Your task to perform on an android device: turn off priority inbox in the gmail app Image 0: 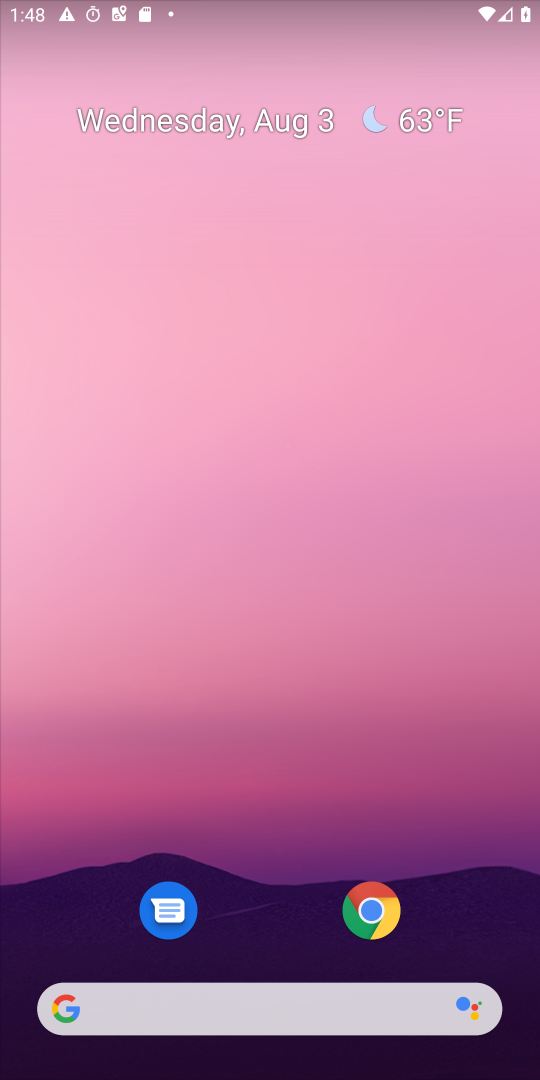
Step 0: drag from (330, 741) to (324, 0)
Your task to perform on an android device: turn off priority inbox in the gmail app Image 1: 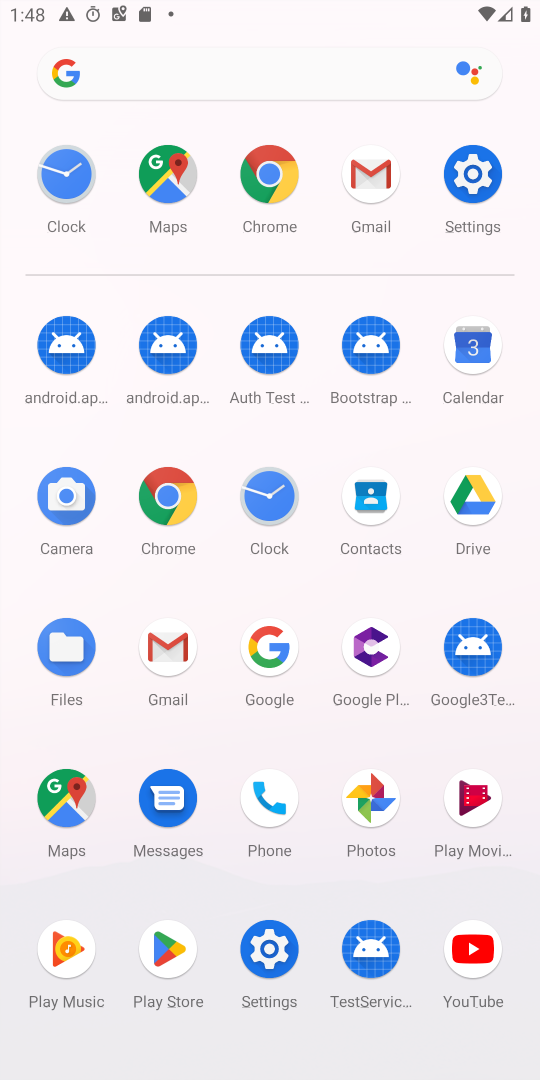
Step 1: click (184, 639)
Your task to perform on an android device: turn off priority inbox in the gmail app Image 2: 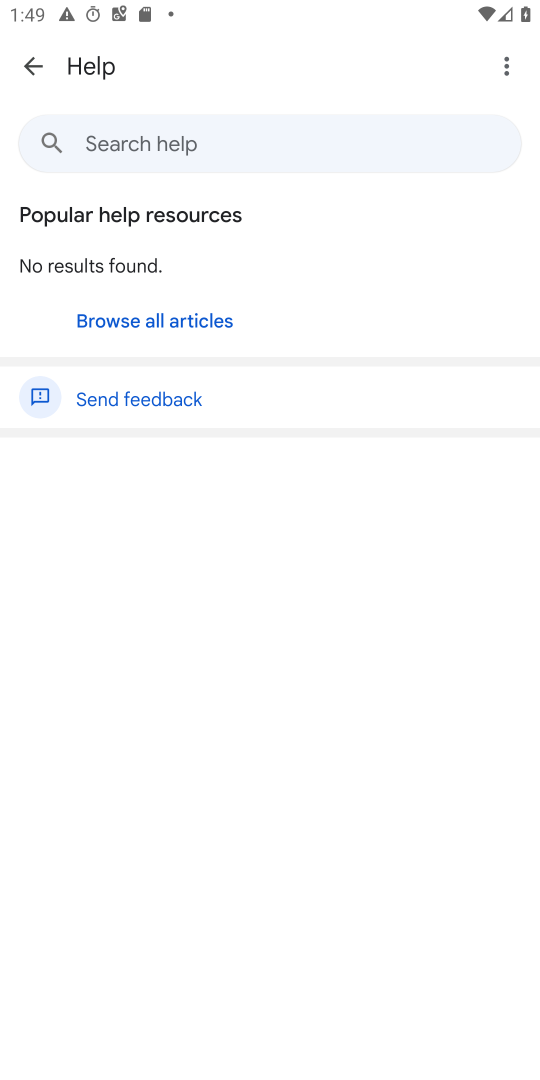
Step 2: press home button
Your task to perform on an android device: turn off priority inbox in the gmail app Image 3: 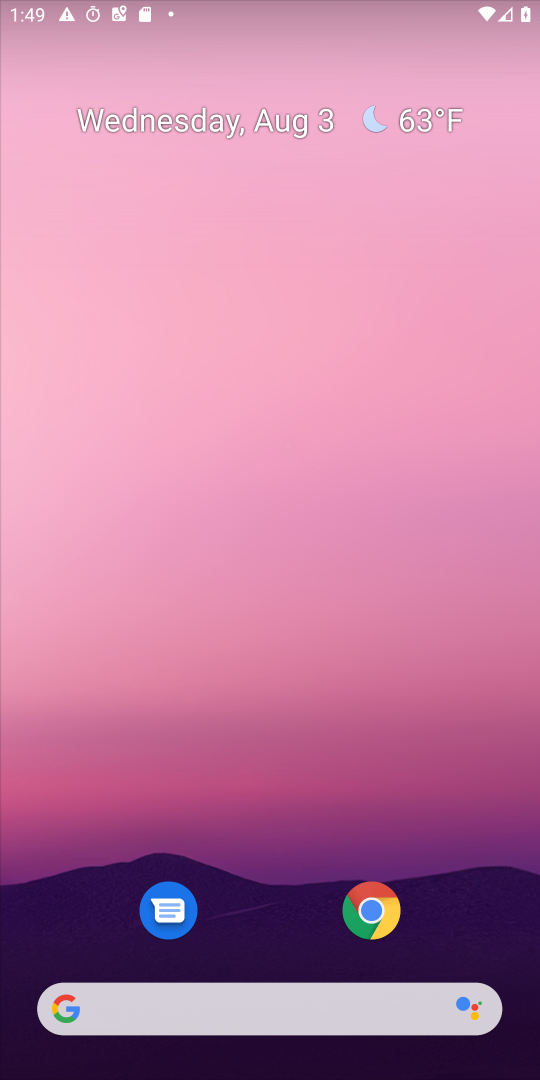
Step 3: drag from (332, 980) to (366, 185)
Your task to perform on an android device: turn off priority inbox in the gmail app Image 4: 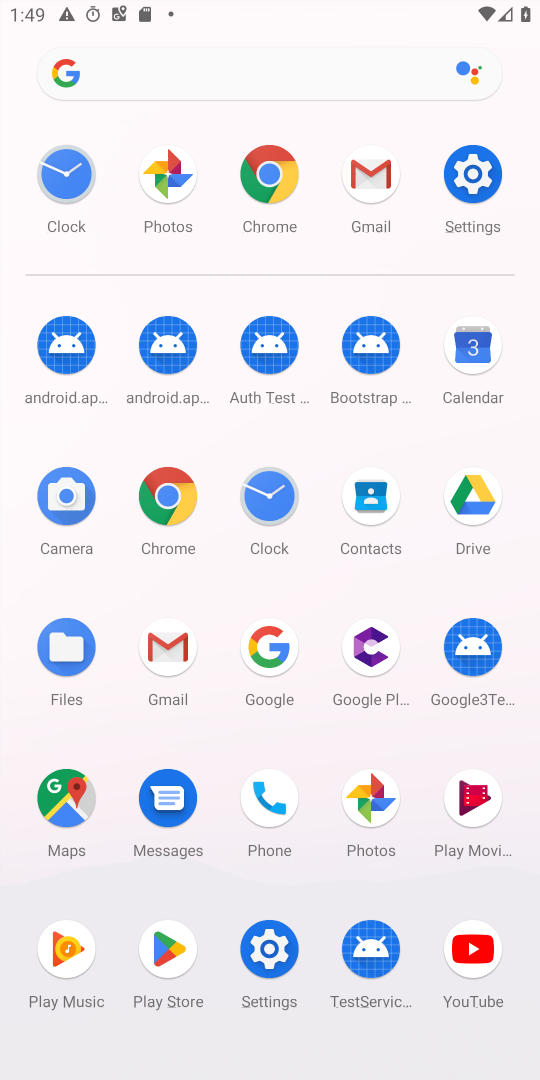
Step 4: click (163, 642)
Your task to perform on an android device: turn off priority inbox in the gmail app Image 5: 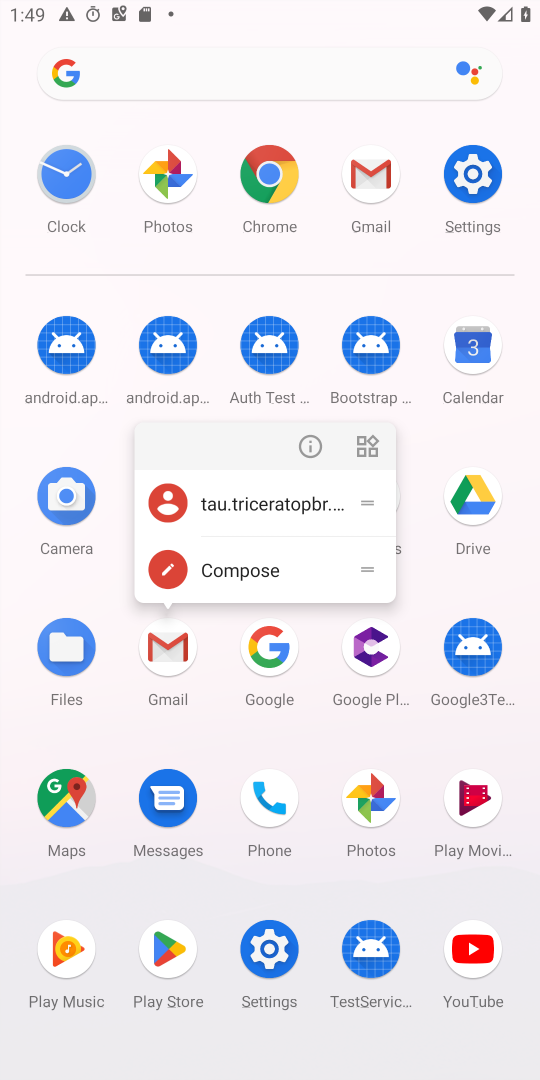
Step 5: click (168, 641)
Your task to perform on an android device: turn off priority inbox in the gmail app Image 6: 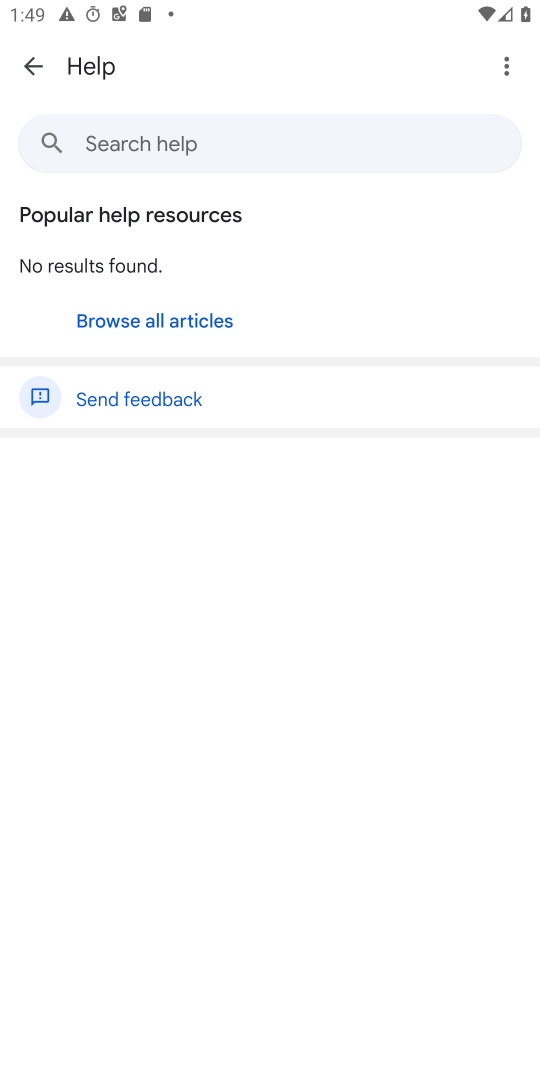
Step 6: press back button
Your task to perform on an android device: turn off priority inbox in the gmail app Image 7: 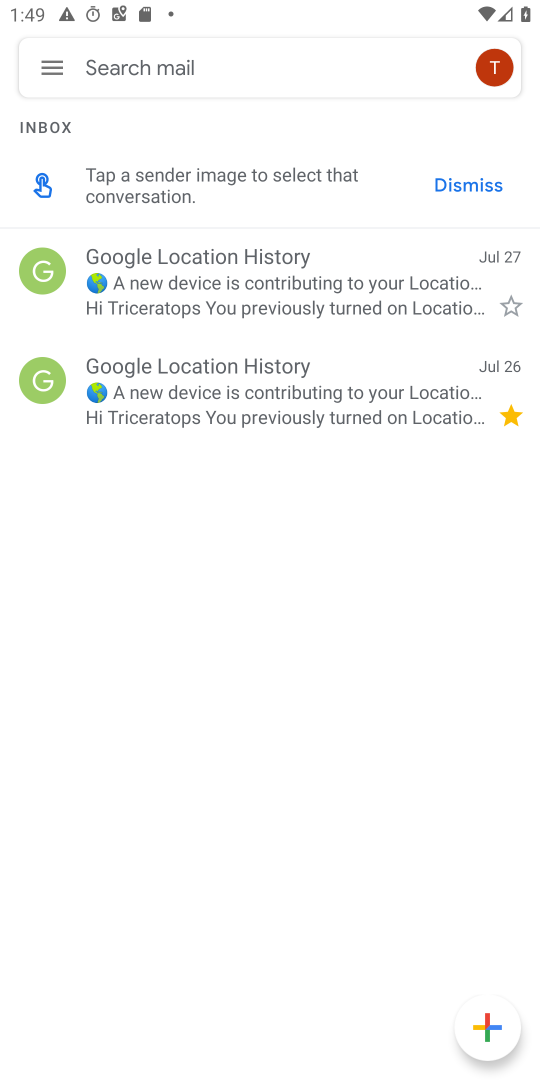
Step 7: click (54, 65)
Your task to perform on an android device: turn off priority inbox in the gmail app Image 8: 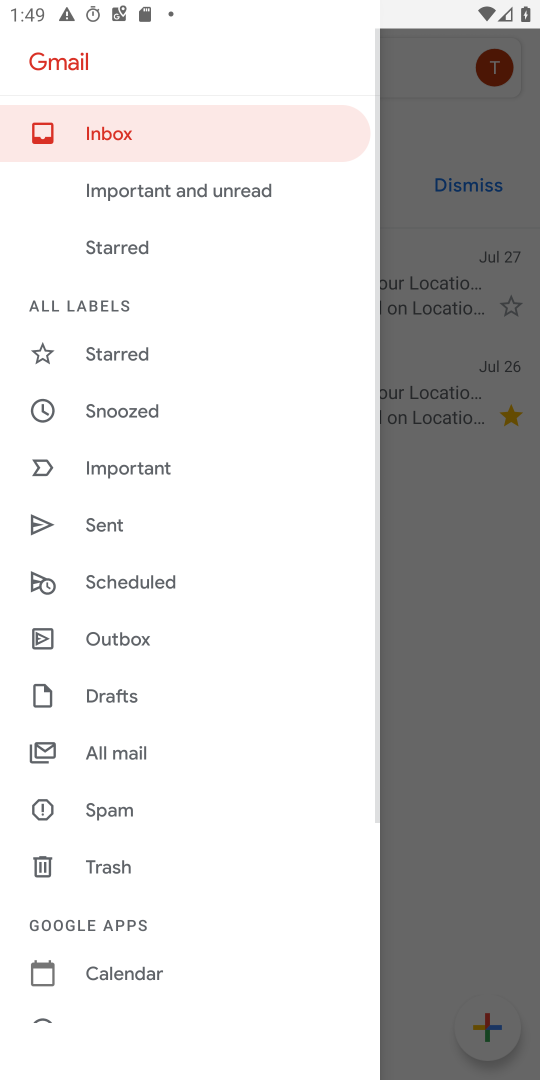
Step 8: drag from (211, 924) to (188, 163)
Your task to perform on an android device: turn off priority inbox in the gmail app Image 9: 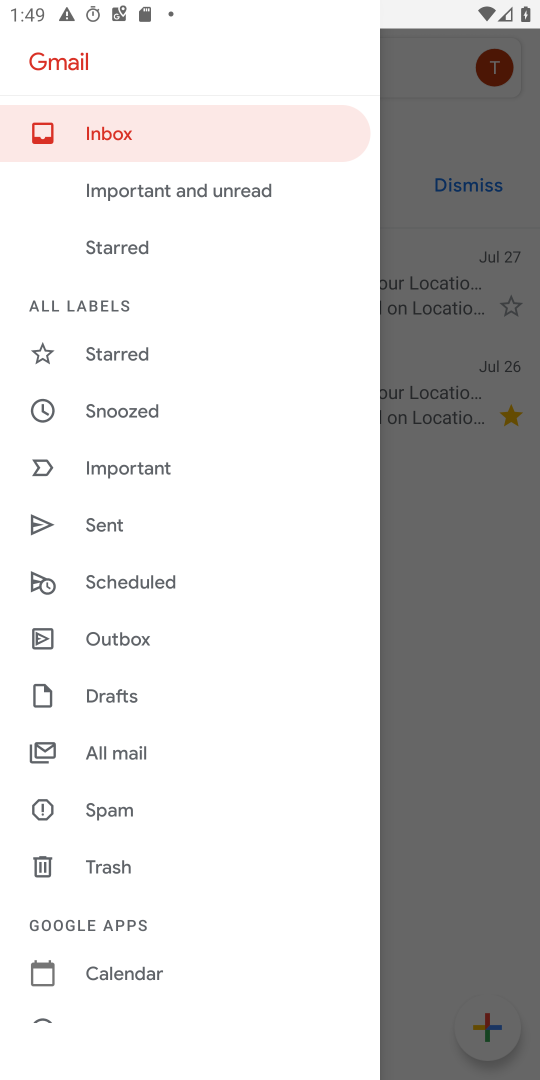
Step 9: drag from (117, 772) to (135, 156)
Your task to perform on an android device: turn off priority inbox in the gmail app Image 10: 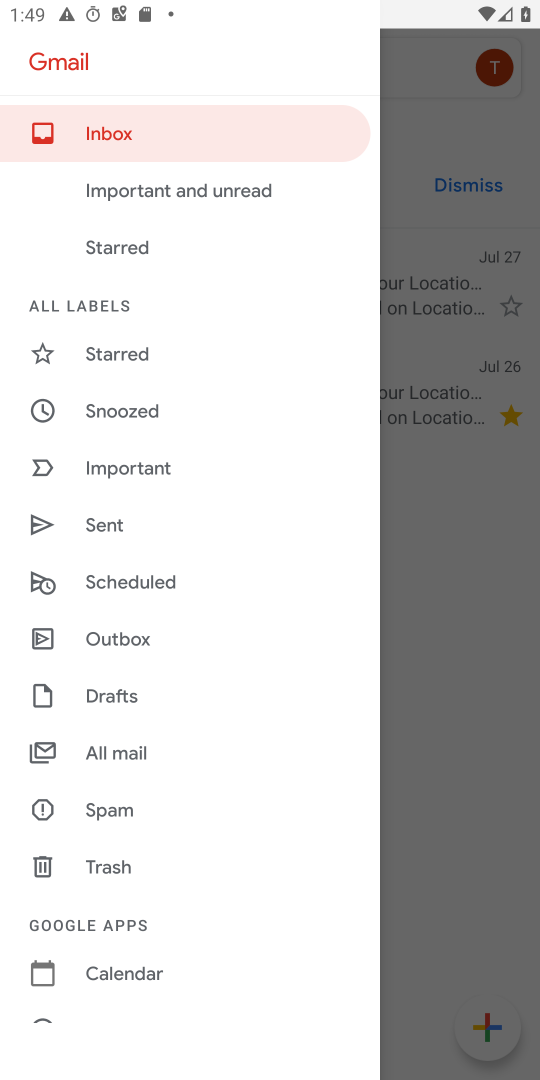
Step 10: drag from (119, 905) to (157, 242)
Your task to perform on an android device: turn off priority inbox in the gmail app Image 11: 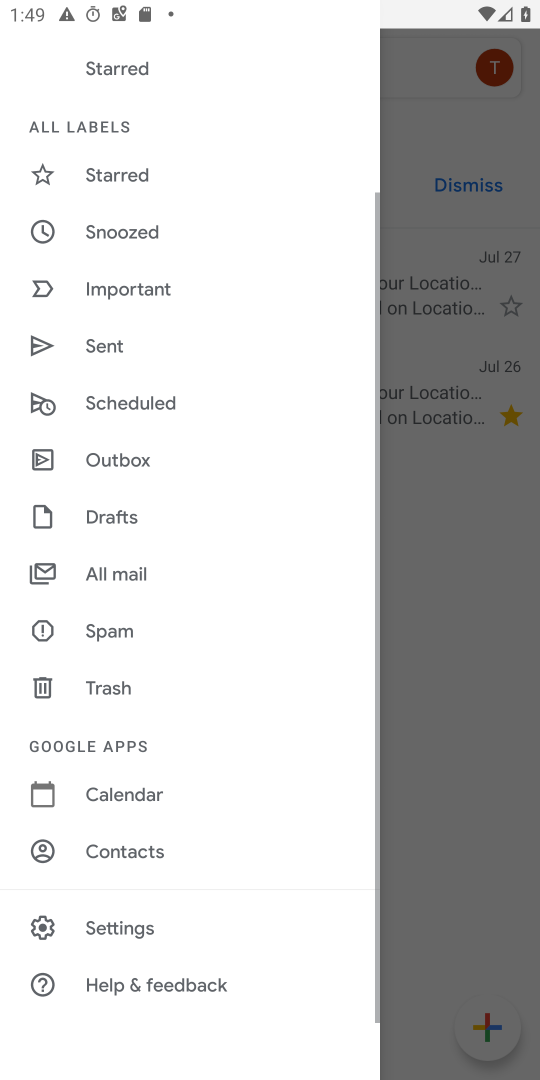
Step 11: click (136, 926)
Your task to perform on an android device: turn off priority inbox in the gmail app Image 12: 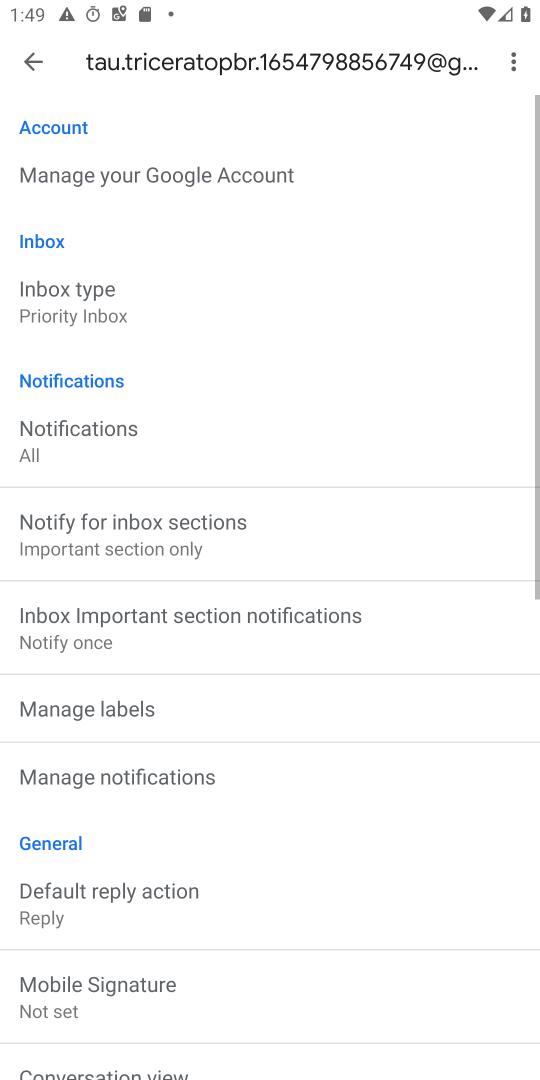
Step 12: drag from (283, 851) to (253, 1073)
Your task to perform on an android device: turn off priority inbox in the gmail app Image 13: 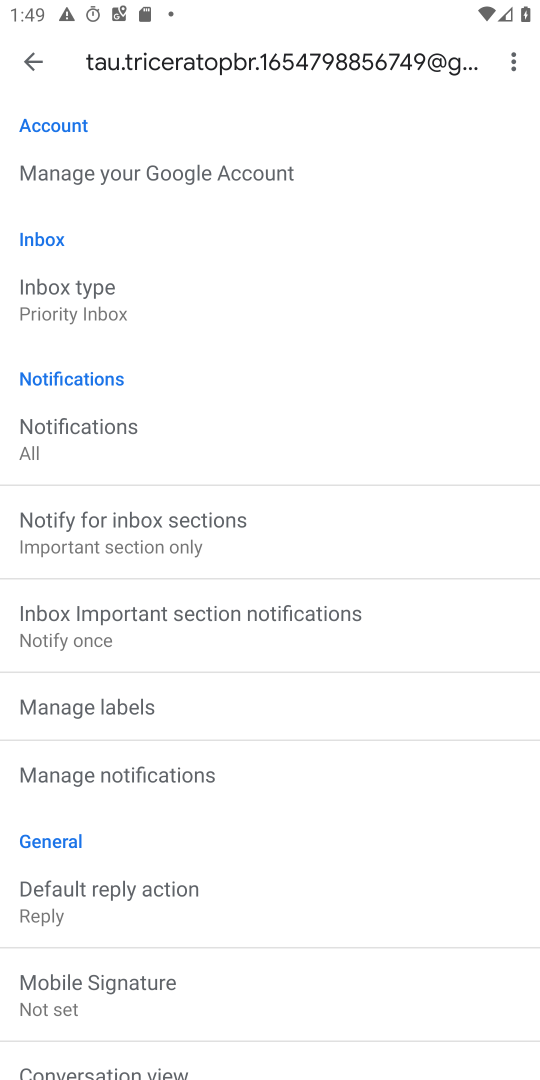
Step 13: click (128, 302)
Your task to perform on an android device: turn off priority inbox in the gmail app Image 14: 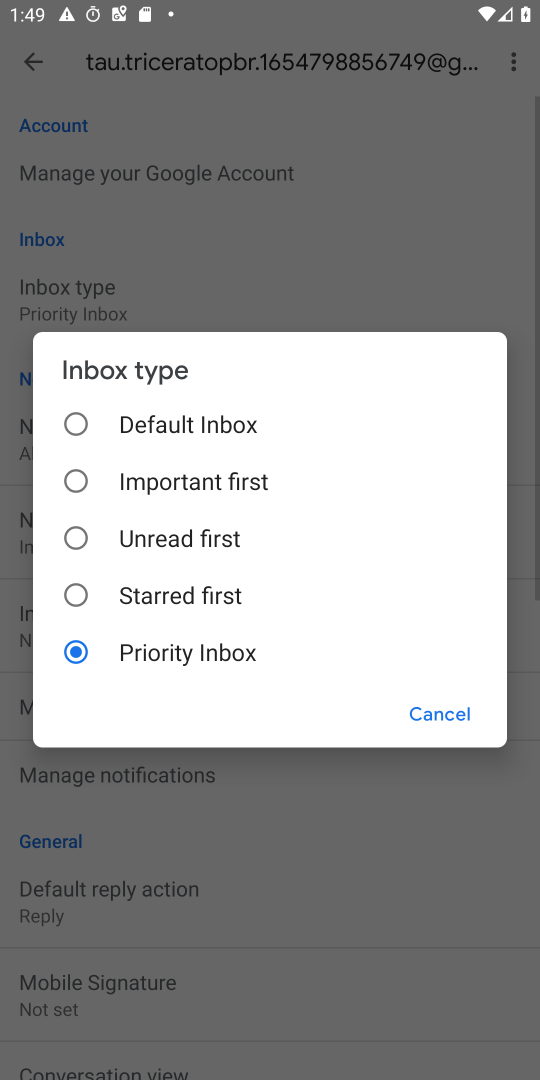
Step 14: click (139, 413)
Your task to perform on an android device: turn off priority inbox in the gmail app Image 15: 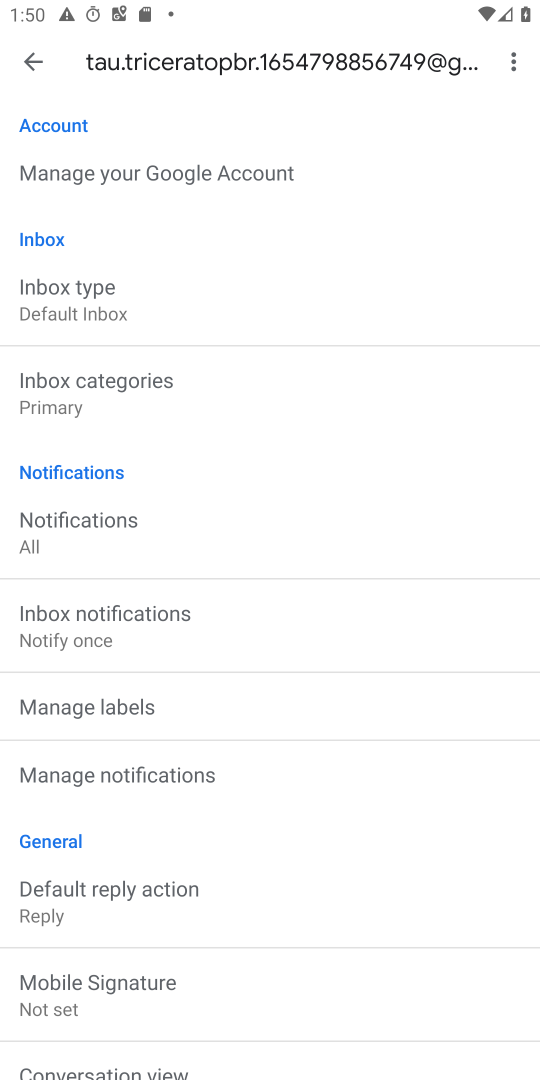
Step 15: task complete